Your task to perform on an android device: read, delete, or share a saved page in the chrome app Image 0: 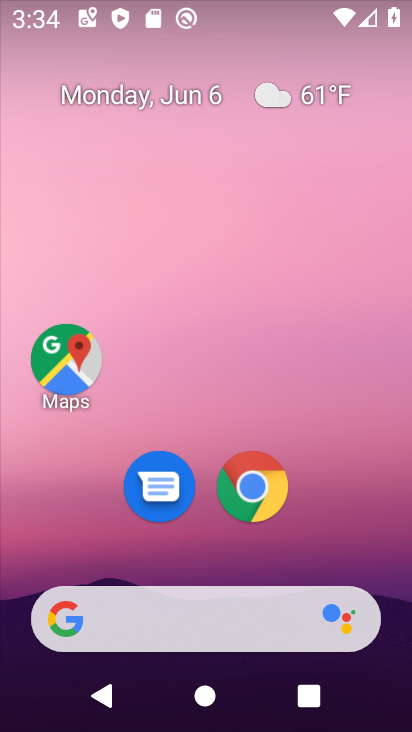
Step 0: drag from (351, 521) to (323, 162)
Your task to perform on an android device: read, delete, or share a saved page in the chrome app Image 1: 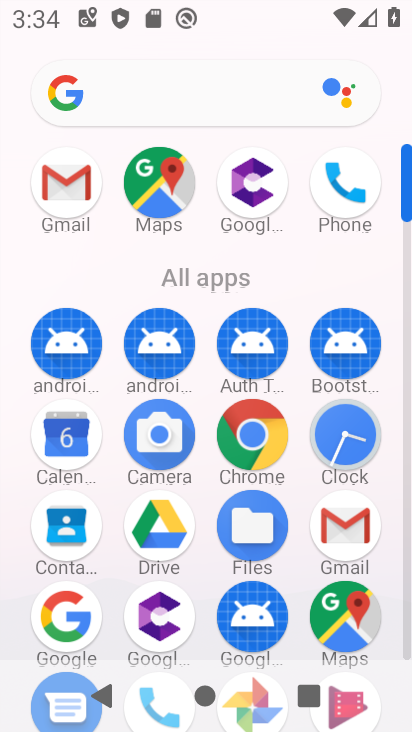
Step 1: click (257, 433)
Your task to perform on an android device: read, delete, or share a saved page in the chrome app Image 2: 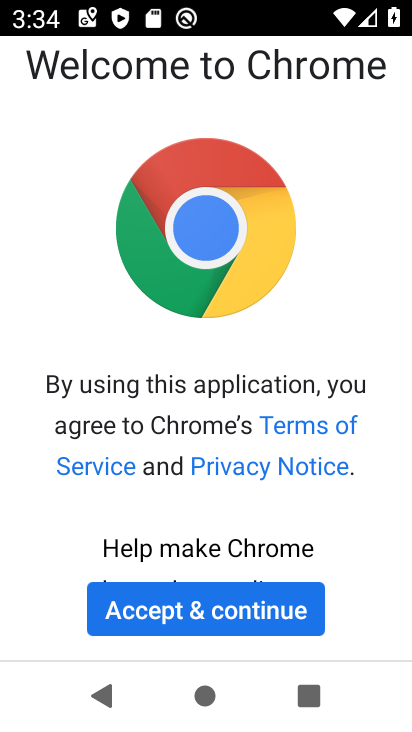
Step 2: click (213, 603)
Your task to perform on an android device: read, delete, or share a saved page in the chrome app Image 3: 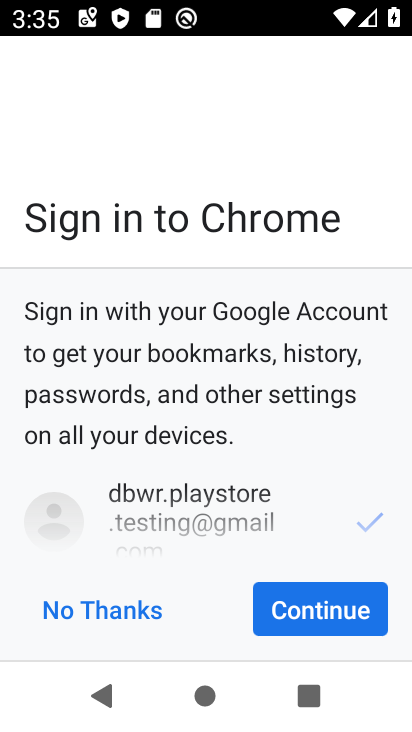
Step 3: click (318, 592)
Your task to perform on an android device: read, delete, or share a saved page in the chrome app Image 4: 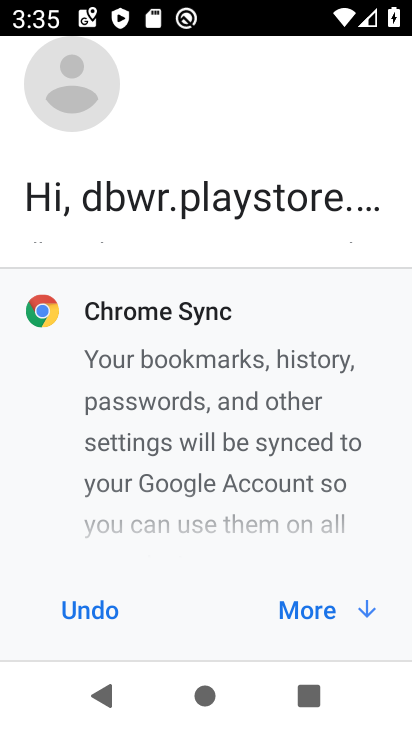
Step 4: click (332, 616)
Your task to perform on an android device: read, delete, or share a saved page in the chrome app Image 5: 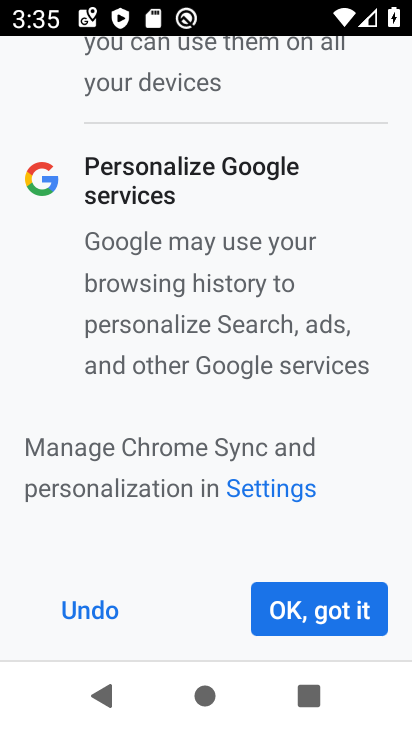
Step 5: click (329, 625)
Your task to perform on an android device: read, delete, or share a saved page in the chrome app Image 6: 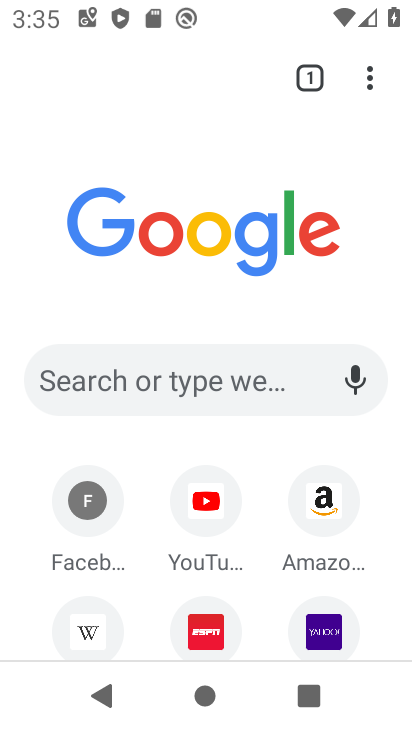
Step 6: task complete